Your task to perform on an android device: open a bookmark in the chrome app Image 0: 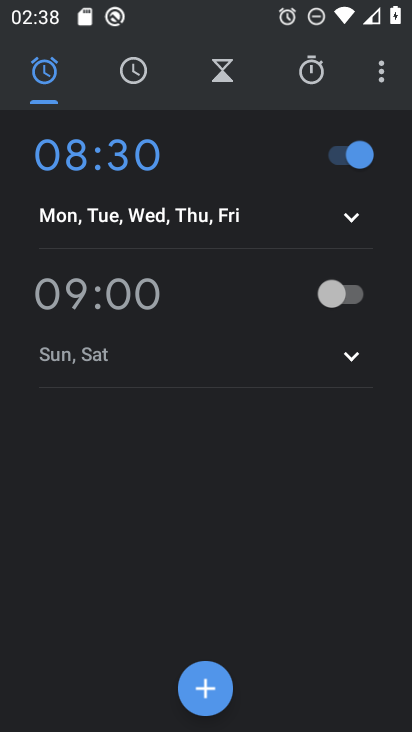
Step 0: press home button
Your task to perform on an android device: open a bookmark in the chrome app Image 1: 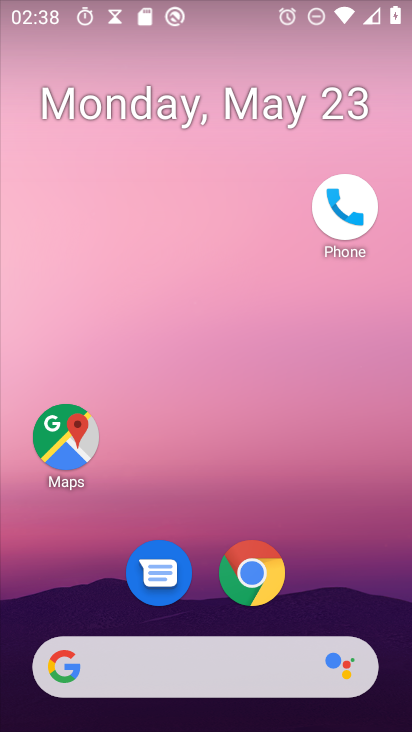
Step 1: click (247, 580)
Your task to perform on an android device: open a bookmark in the chrome app Image 2: 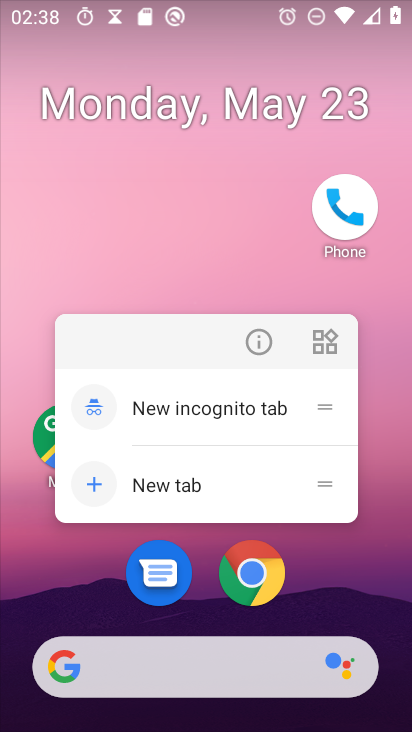
Step 2: click (260, 586)
Your task to perform on an android device: open a bookmark in the chrome app Image 3: 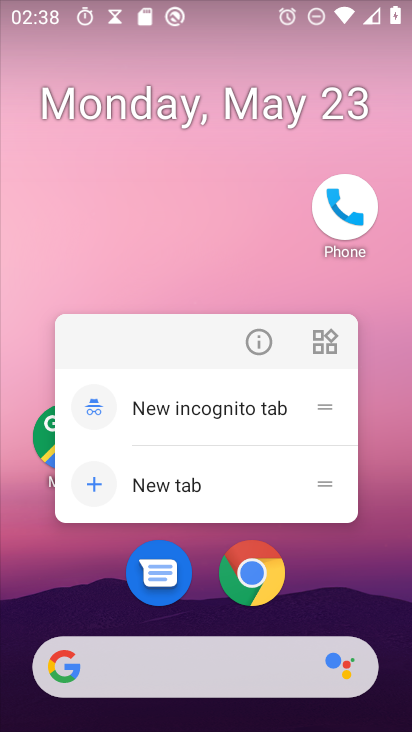
Step 3: click (250, 580)
Your task to perform on an android device: open a bookmark in the chrome app Image 4: 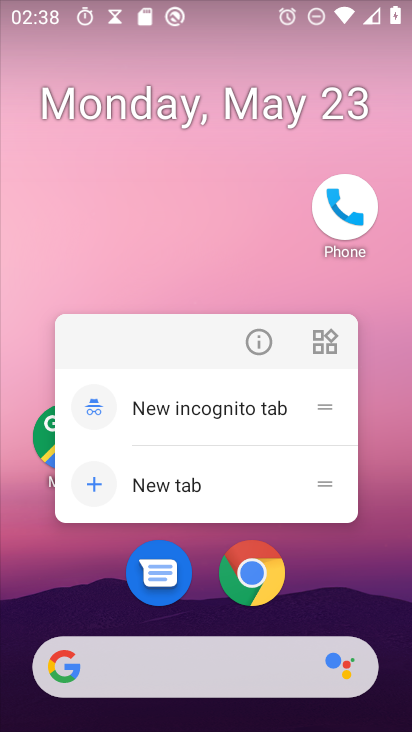
Step 4: click (245, 584)
Your task to perform on an android device: open a bookmark in the chrome app Image 5: 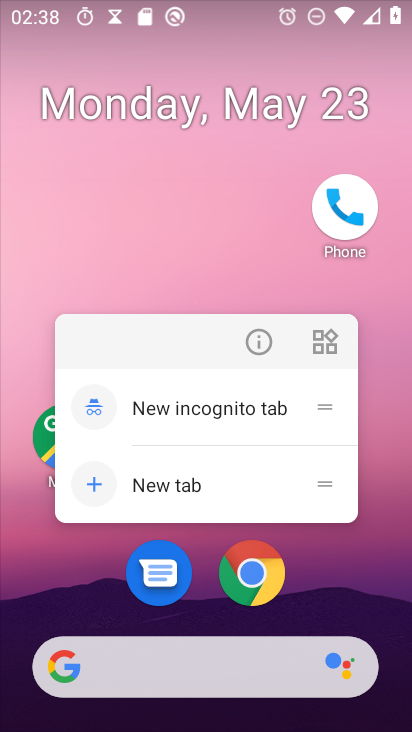
Step 5: click (245, 573)
Your task to perform on an android device: open a bookmark in the chrome app Image 6: 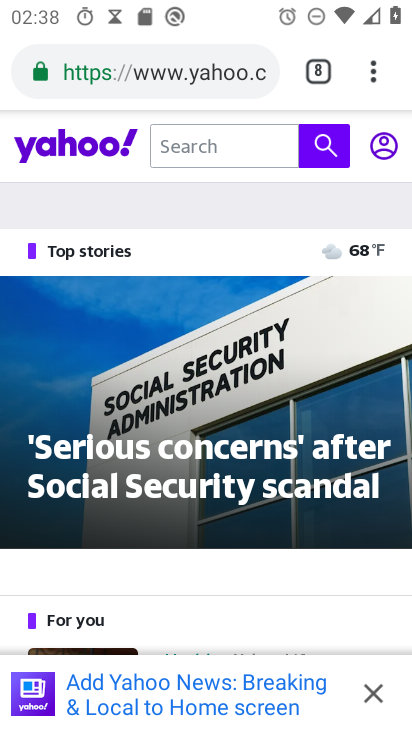
Step 6: task complete